Your task to perform on an android device: star an email in the gmail app Image 0: 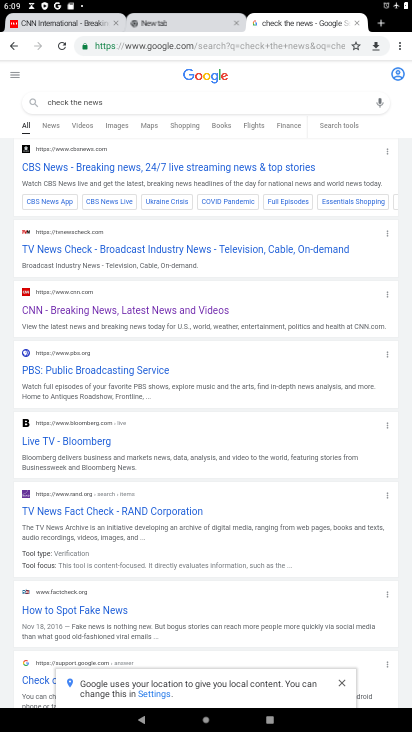
Step 0: press home button
Your task to perform on an android device: star an email in the gmail app Image 1: 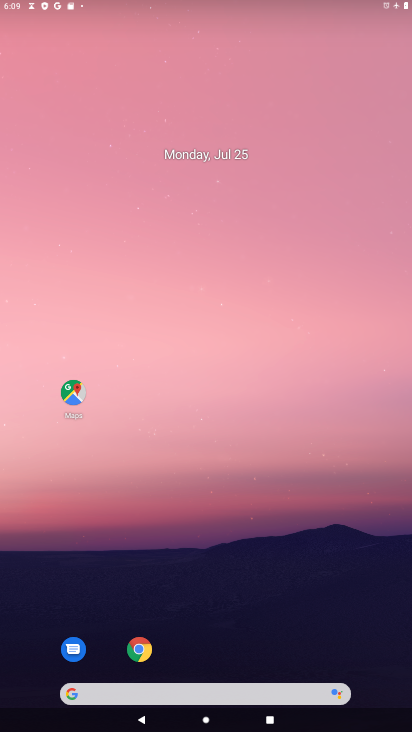
Step 1: drag from (148, 591) to (256, 7)
Your task to perform on an android device: star an email in the gmail app Image 2: 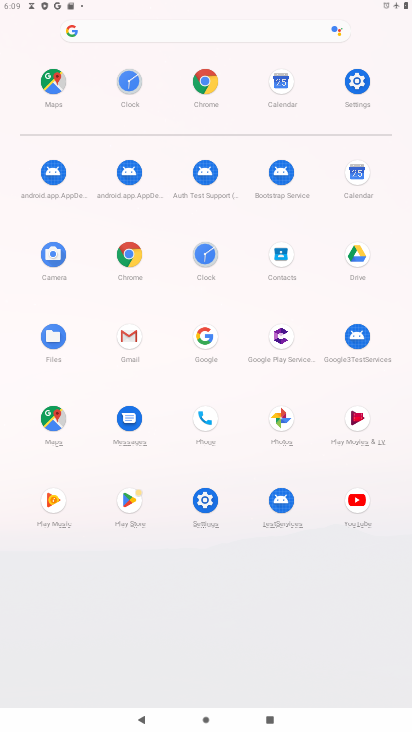
Step 2: click (138, 338)
Your task to perform on an android device: star an email in the gmail app Image 3: 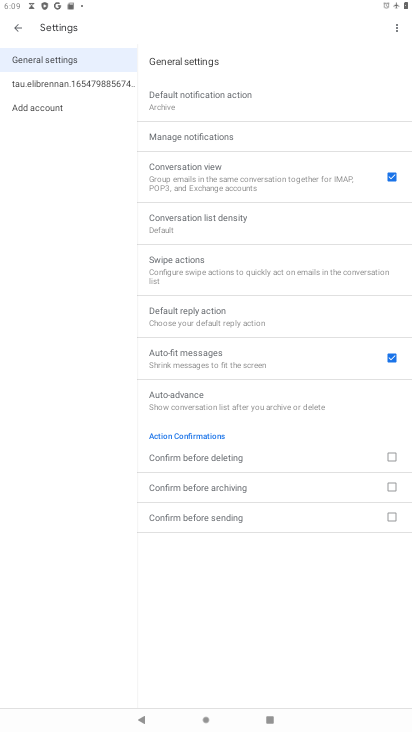
Step 3: press back button
Your task to perform on an android device: star an email in the gmail app Image 4: 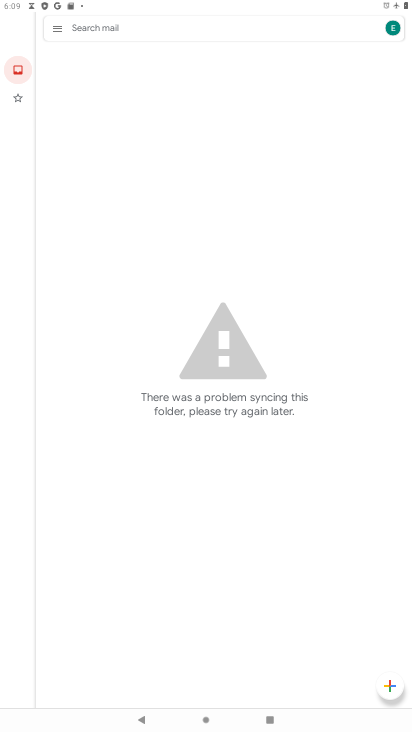
Step 4: click (60, 27)
Your task to perform on an android device: star an email in the gmail app Image 5: 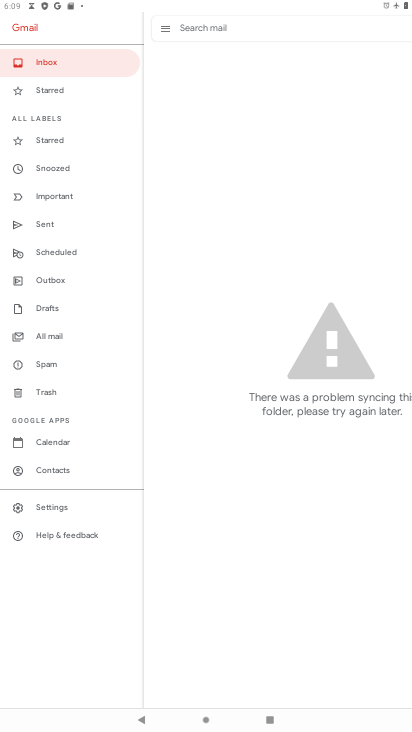
Step 5: click (60, 136)
Your task to perform on an android device: star an email in the gmail app Image 6: 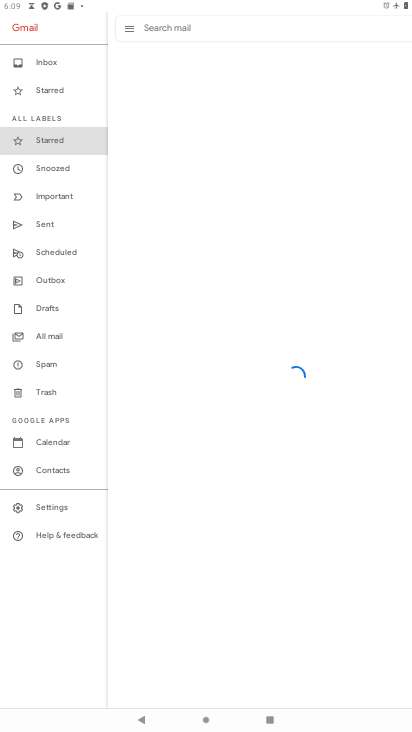
Step 6: task complete